Your task to perform on an android device: add a contact in the contacts app Image 0: 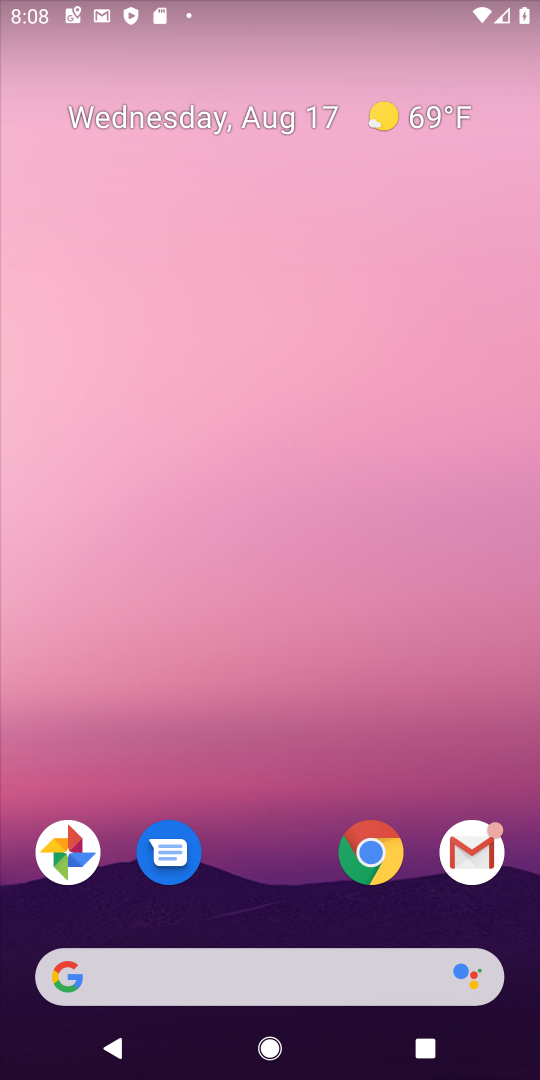
Step 0: drag from (280, 909) to (166, 309)
Your task to perform on an android device: add a contact in the contacts app Image 1: 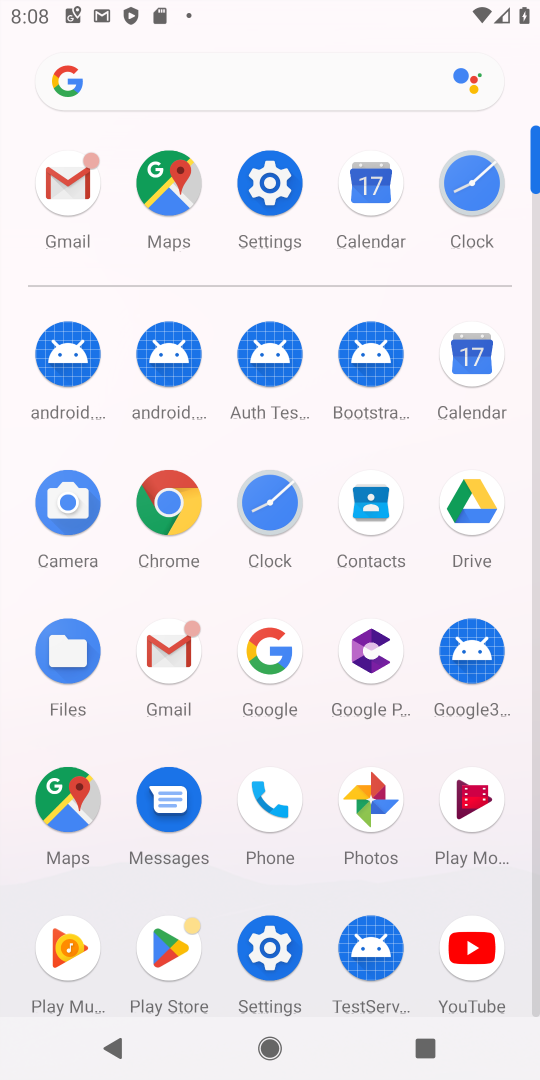
Step 1: click (364, 511)
Your task to perform on an android device: add a contact in the contacts app Image 2: 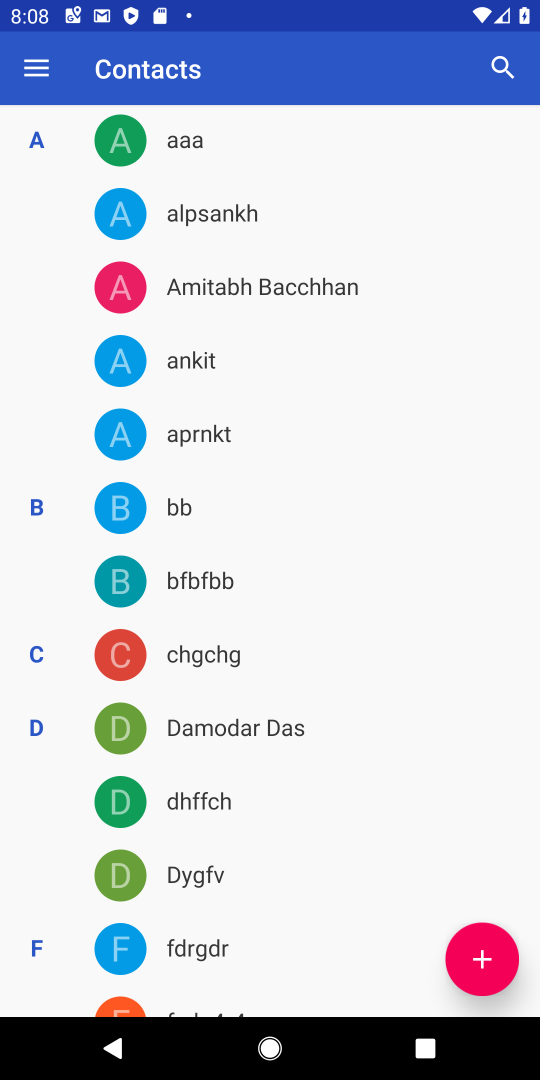
Step 2: click (484, 963)
Your task to perform on an android device: add a contact in the contacts app Image 3: 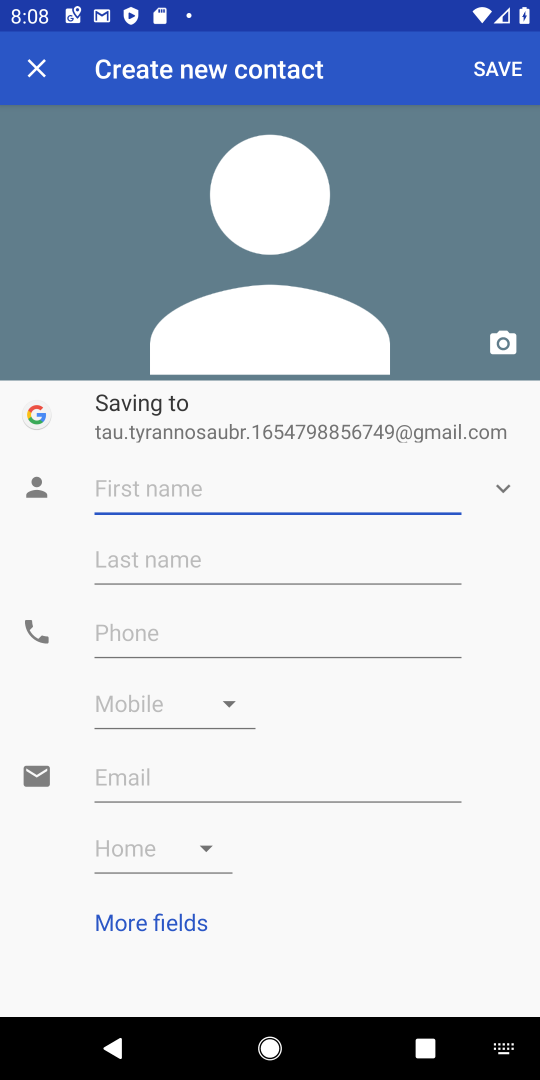
Step 3: type "b"
Your task to perform on an android device: add a contact in the contacts app Image 4: 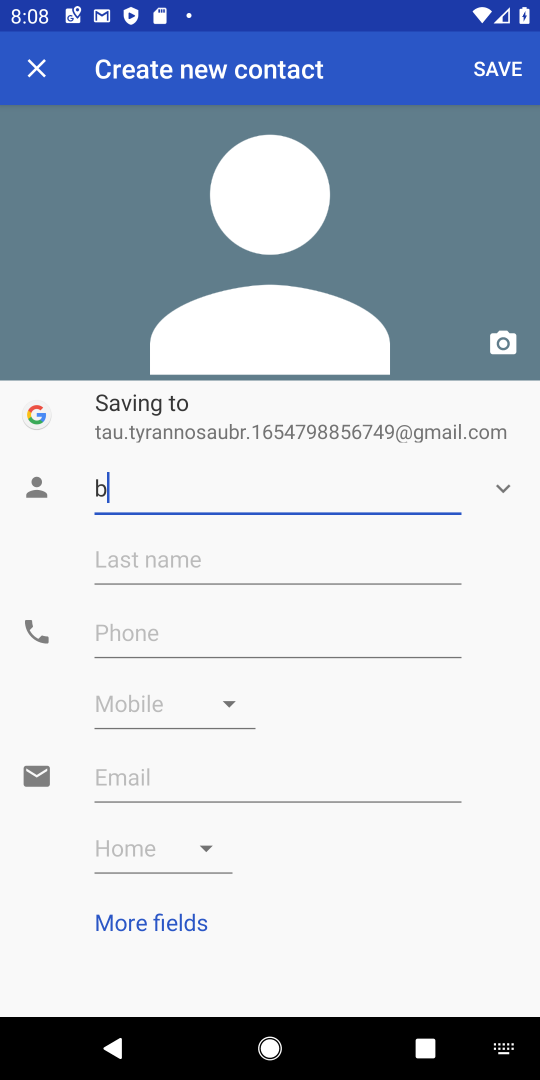
Step 4: click (240, 641)
Your task to perform on an android device: add a contact in the contacts app Image 5: 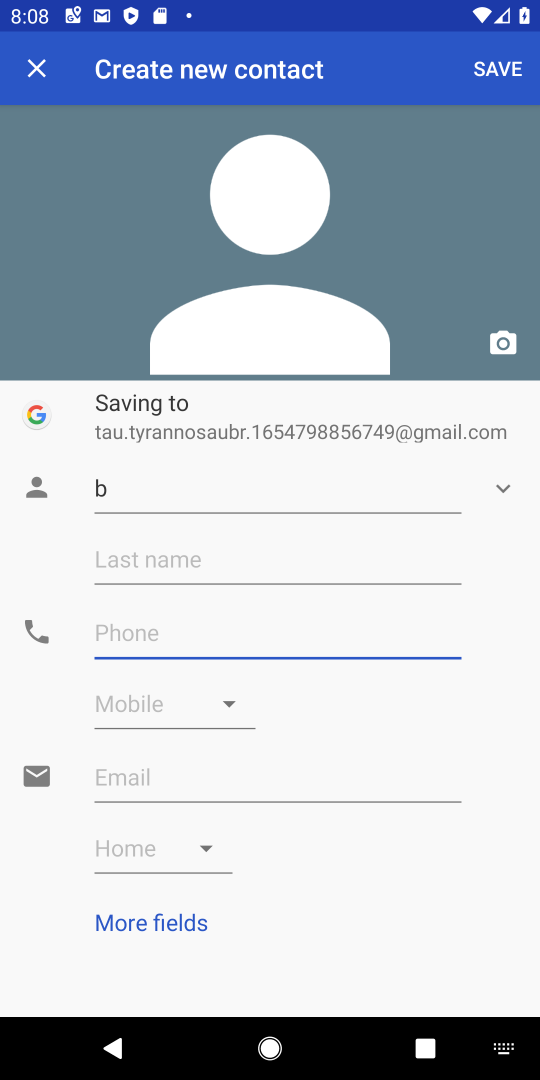
Step 5: type "9"
Your task to perform on an android device: add a contact in the contacts app Image 6: 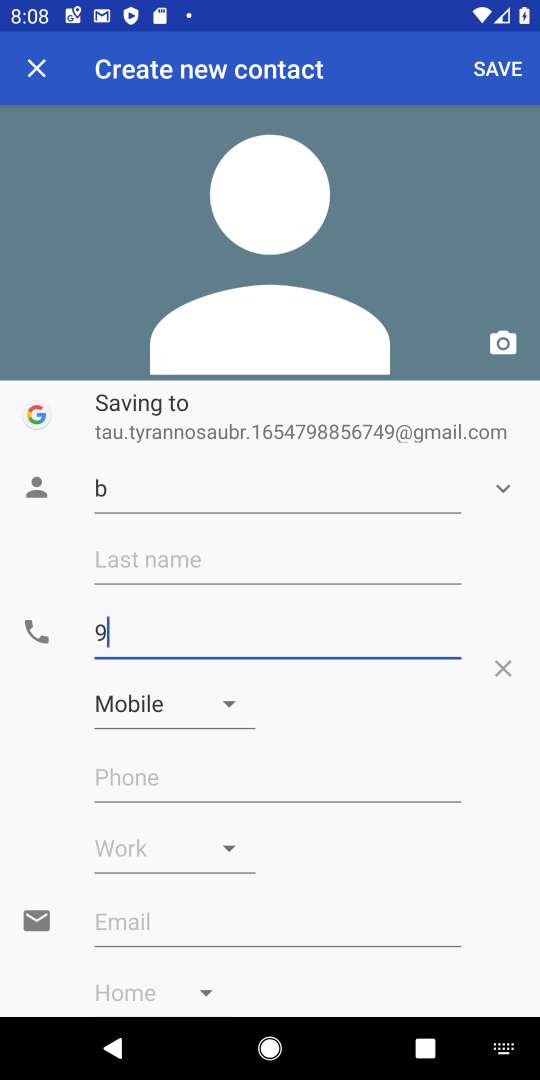
Step 6: click (490, 69)
Your task to perform on an android device: add a contact in the contacts app Image 7: 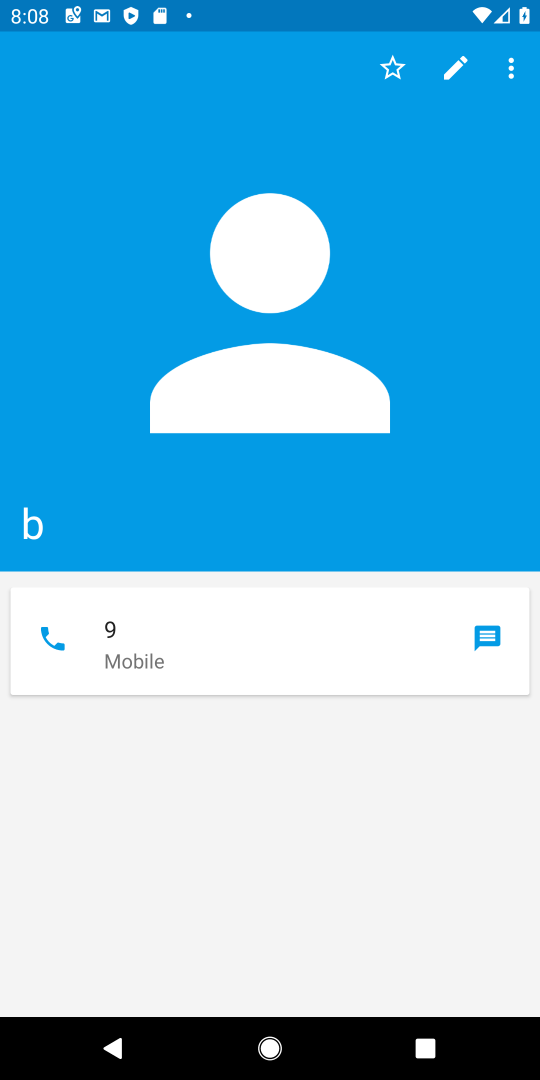
Step 7: task complete